Your task to perform on an android device: Go to Yahoo.com Image 0: 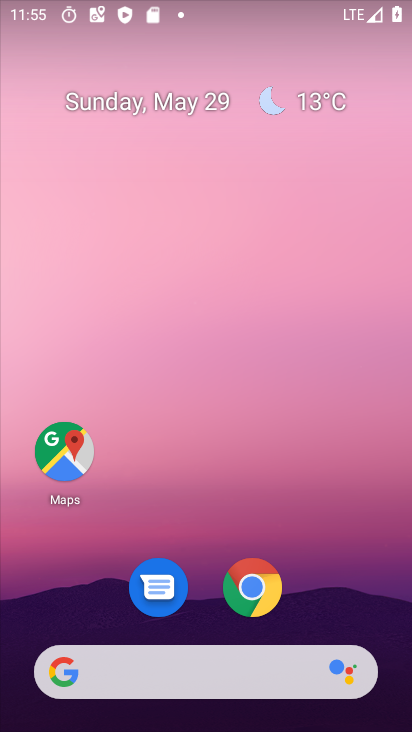
Step 0: click (253, 593)
Your task to perform on an android device: Go to Yahoo.com Image 1: 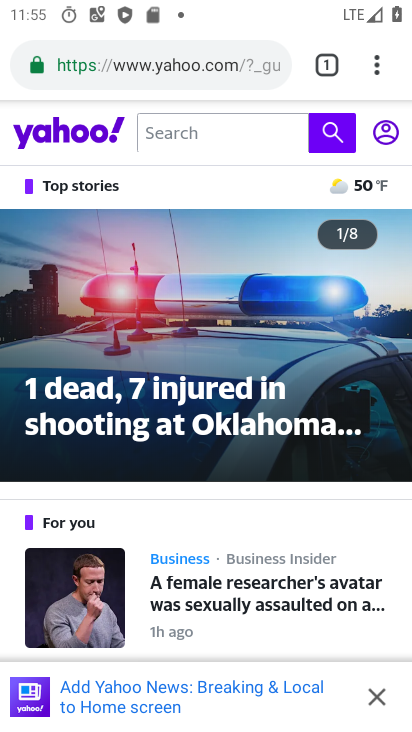
Step 1: task complete